Your task to perform on an android device: Go to sound settings Image 0: 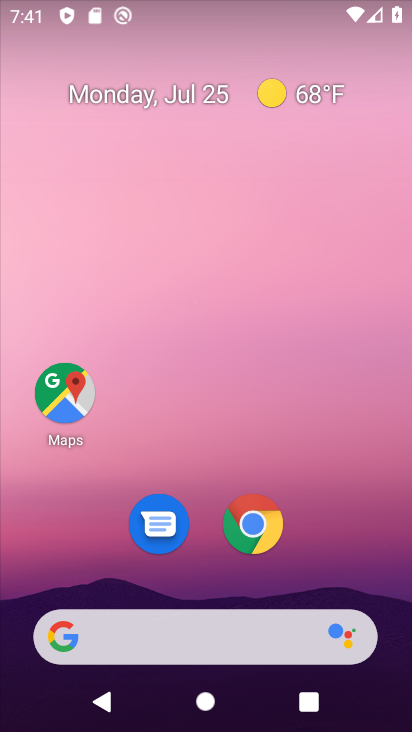
Step 0: click (190, 660)
Your task to perform on an android device: Go to sound settings Image 1: 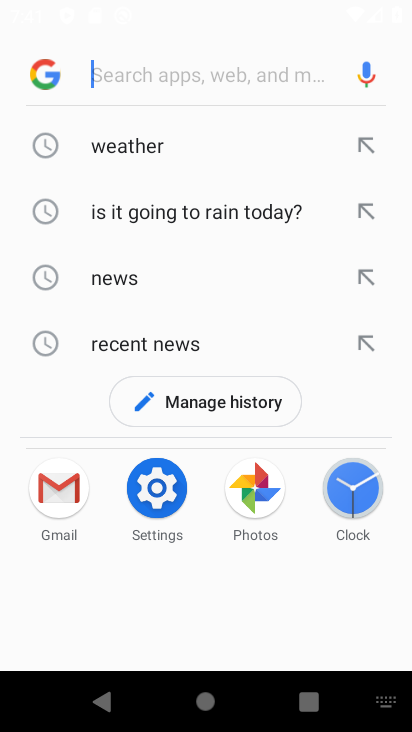
Step 1: click (40, 58)
Your task to perform on an android device: Go to sound settings Image 2: 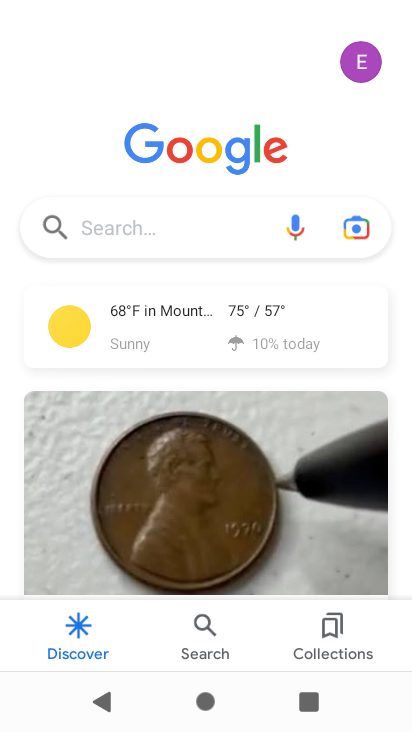
Step 2: click (363, 72)
Your task to perform on an android device: Go to sound settings Image 3: 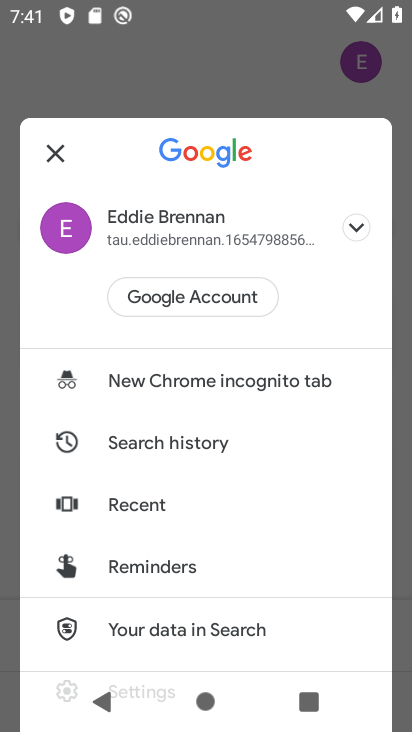
Step 3: drag from (236, 562) to (269, 165)
Your task to perform on an android device: Go to sound settings Image 4: 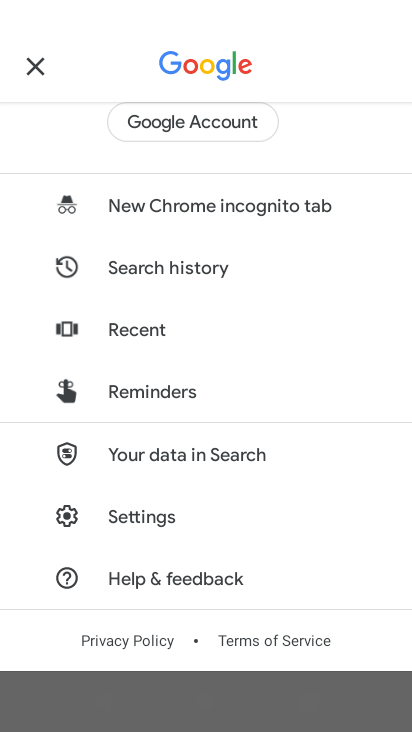
Step 4: press home button
Your task to perform on an android device: Go to sound settings Image 5: 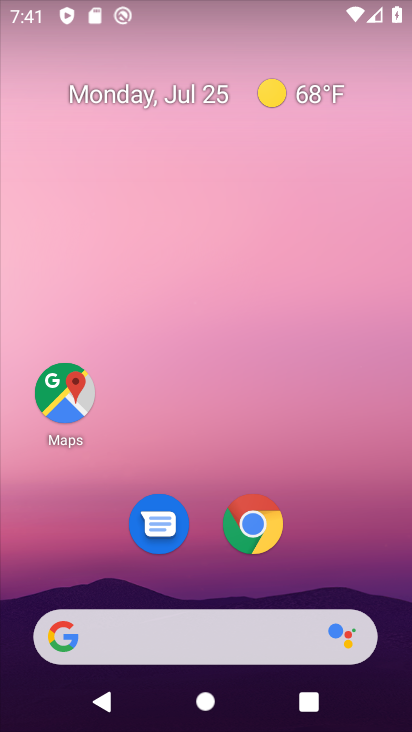
Step 5: drag from (307, 557) to (347, 70)
Your task to perform on an android device: Go to sound settings Image 6: 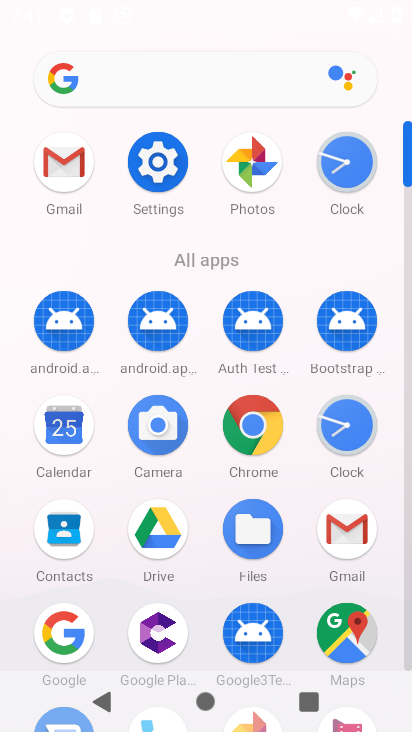
Step 6: click (174, 164)
Your task to perform on an android device: Go to sound settings Image 7: 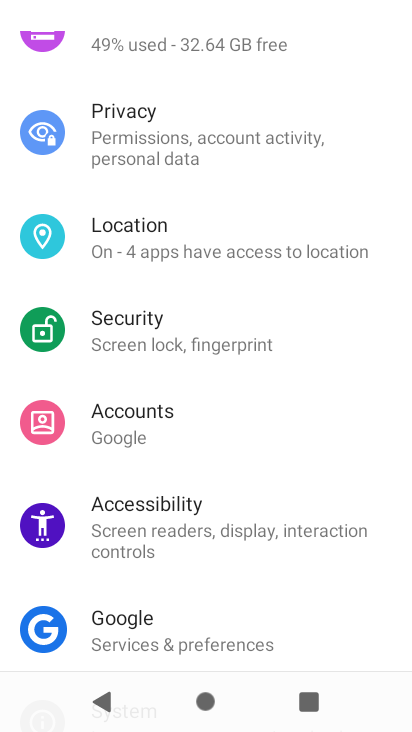
Step 7: drag from (232, 217) to (225, 623)
Your task to perform on an android device: Go to sound settings Image 8: 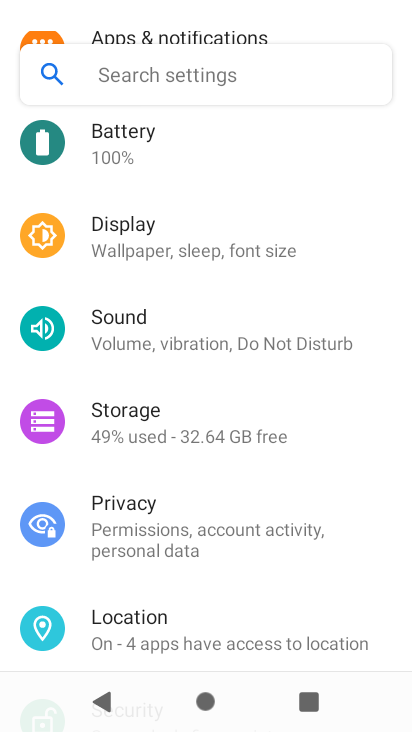
Step 8: click (227, 338)
Your task to perform on an android device: Go to sound settings Image 9: 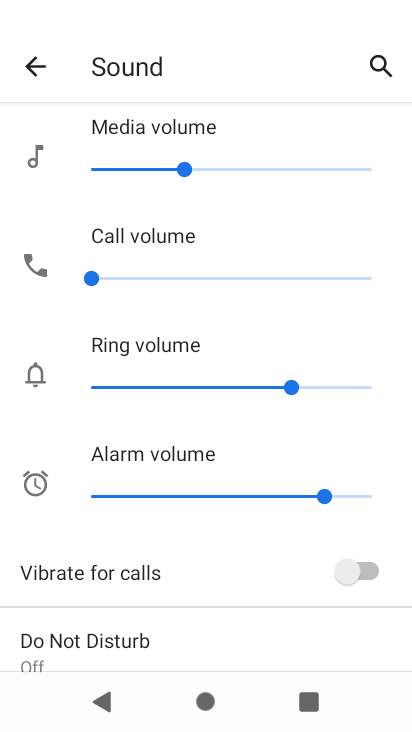
Step 9: task complete